Your task to perform on an android device: turn on improve location accuracy Image 0: 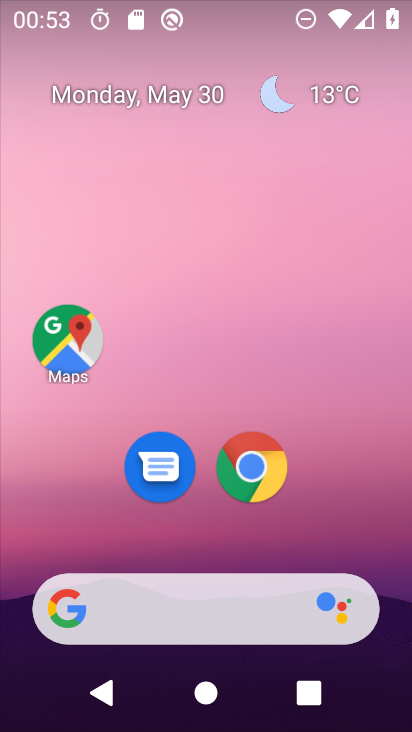
Step 0: drag from (184, 561) to (192, 210)
Your task to perform on an android device: turn on improve location accuracy Image 1: 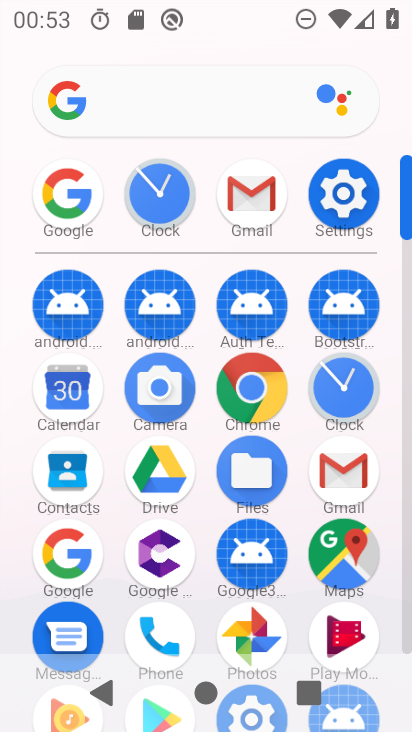
Step 1: click (314, 196)
Your task to perform on an android device: turn on improve location accuracy Image 2: 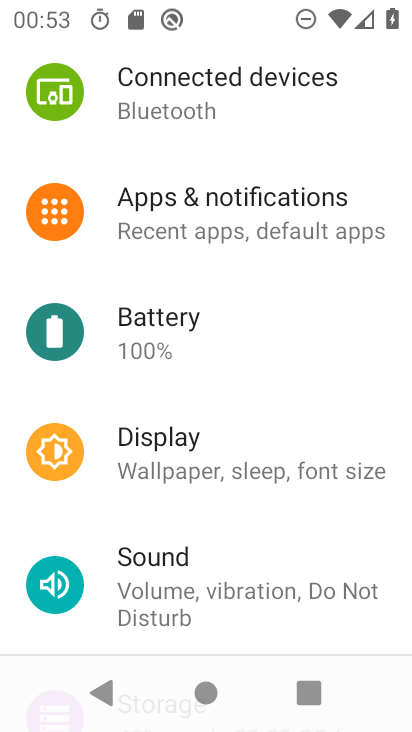
Step 2: drag from (242, 644) to (269, 245)
Your task to perform on an android device: turn on improve location accuracy Image 3: 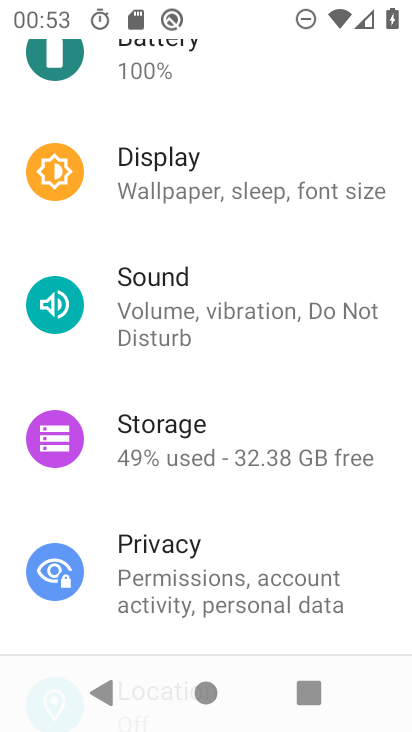
Step 3: drag from (243, 596) to (252, 245)
Your task to perform on an android device: turn on improve location accuracy Image 4: 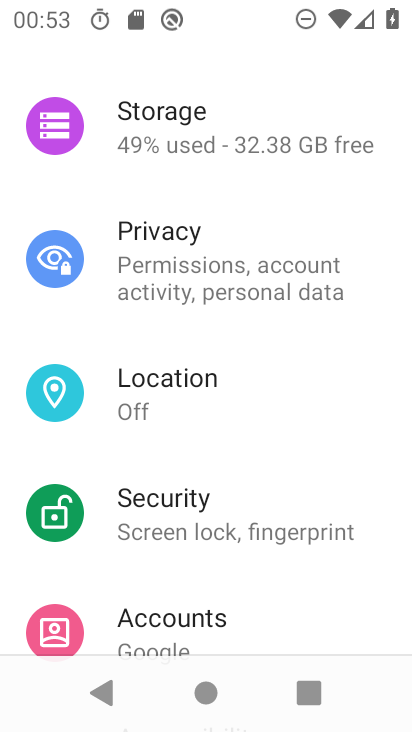
Step 4: click (250, 373)
Your task to perform on an android device: turn on improve location accuracy Image 5: 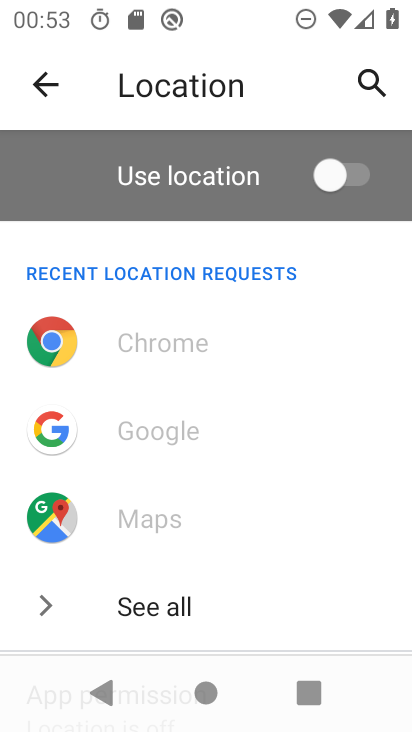
Step 5: drag from (217, 513) to (257, 285)
Your task to perform on an android device: turn on improve location accuracy Image 6: 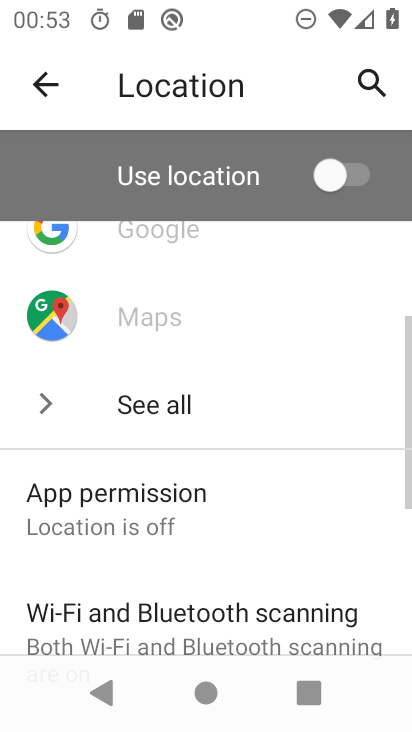
Step 6: drag from (258, 536) to (277, 293)
Your task to perform on an android device: turn on improve location accuracy Image 7: 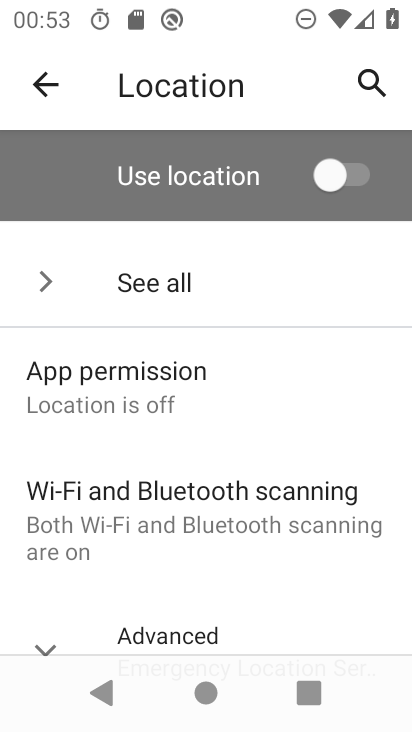
Step 7: drag from (274, 533) to (276, 353)
Your task to perform on an android device: turn on improve location accuracy Image 8: 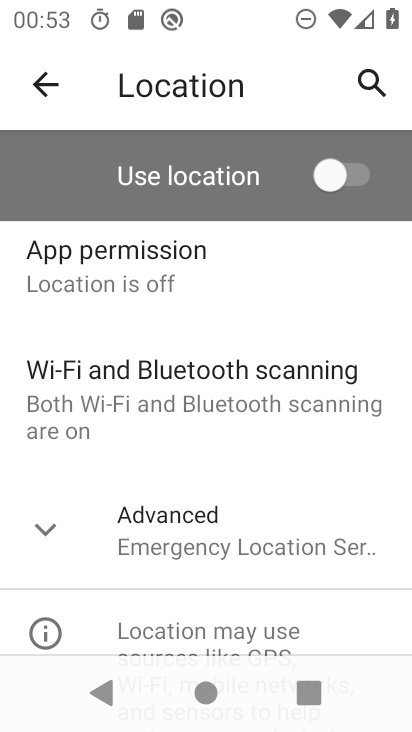
Step 8: drag from (239, 541) to (264, 377)
Your task to perform on an android device: turn on improve location accuracy Image 9: 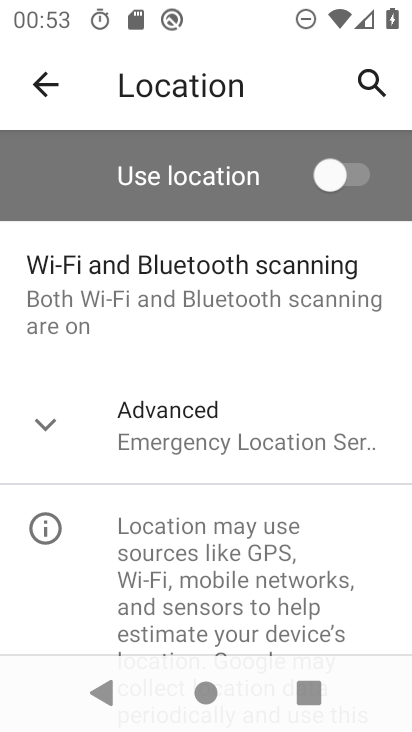
Step 9: click (238, 420)
Your task to perform on an android device: turn on improve location accuracy Image 10: 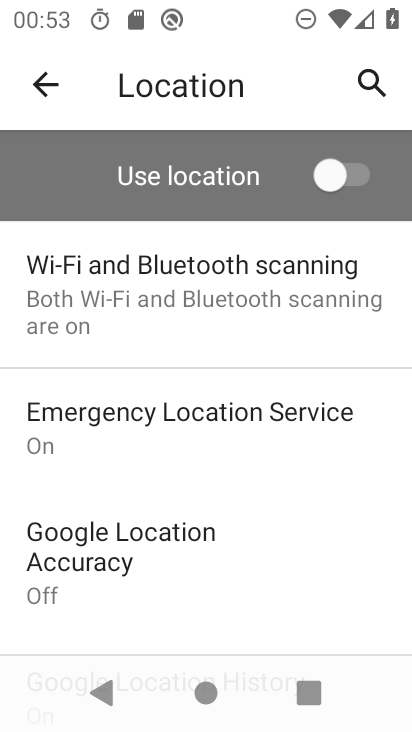
Step 10: click (199, 569)
Your task to perform on an android device: turn on improve location accuracy Image 11: 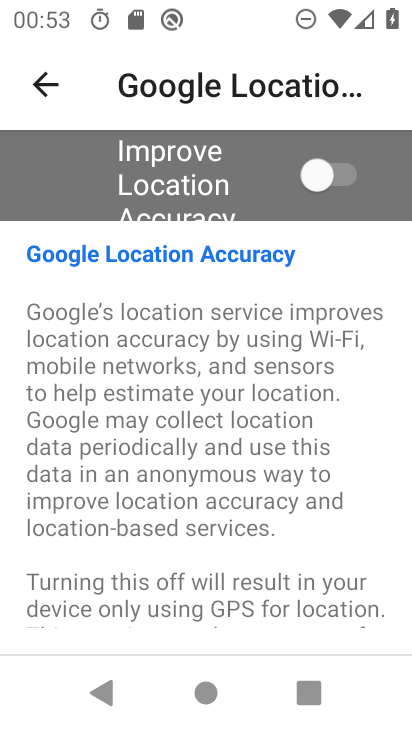
Step 11: click (342, 169)
Your task to perform on an android device: turn on improve location accuracy Image 12: 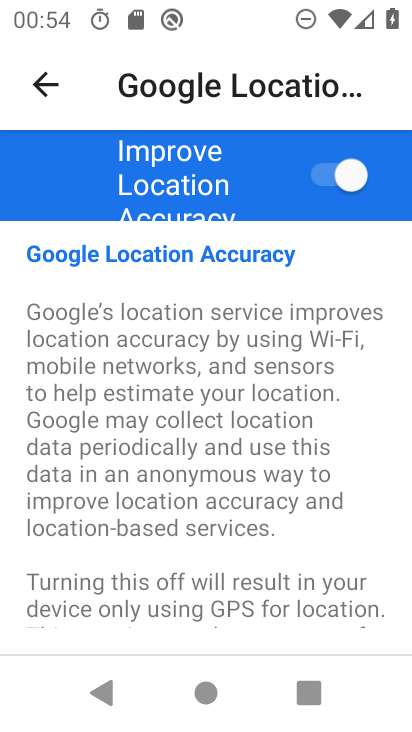
Step 12: task complete